Your task to perform on an android device: Add razer blade to the cart on costco.com, then select checkout. Image 0: 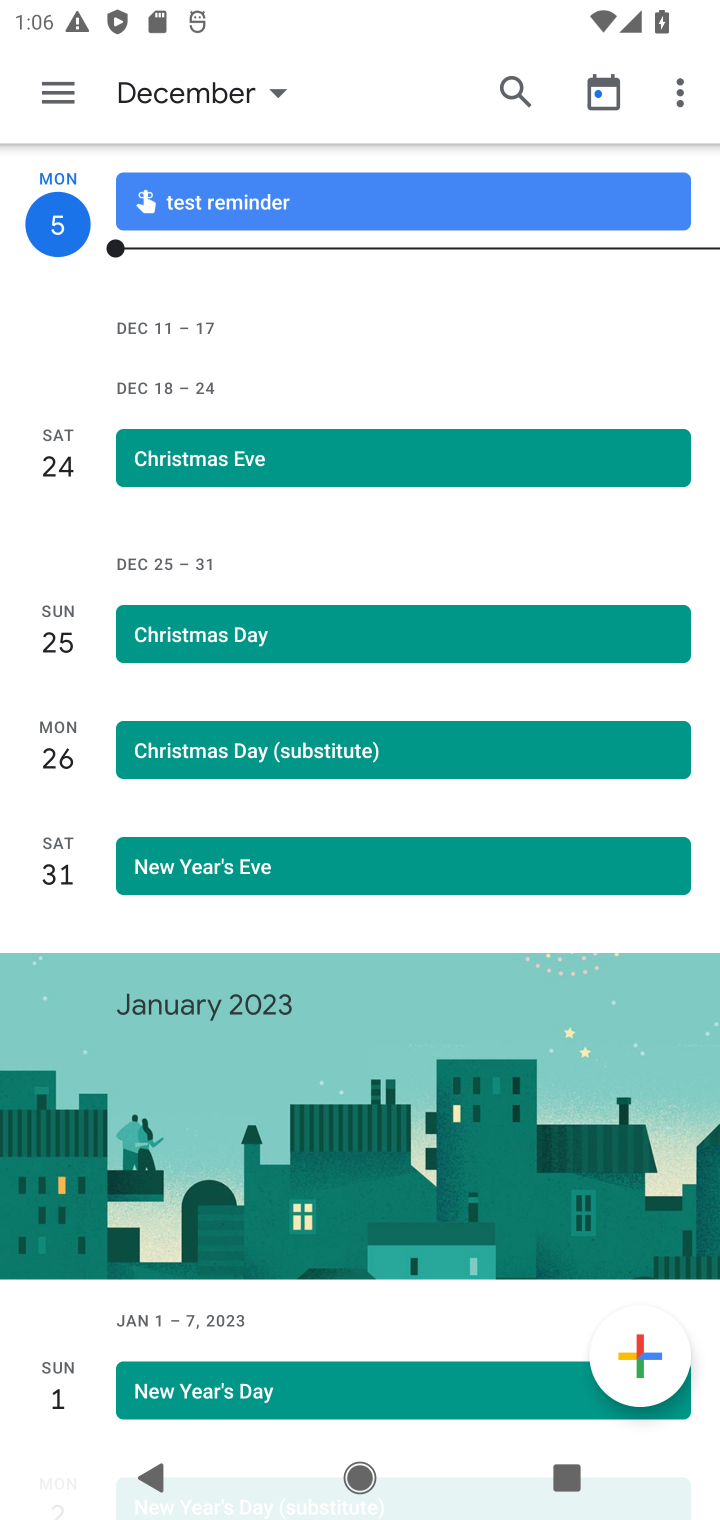
Step 0: press home button
Your task to perform on an android device: Add razer blade to the cart on costco.com, then select checkout. Image 1: 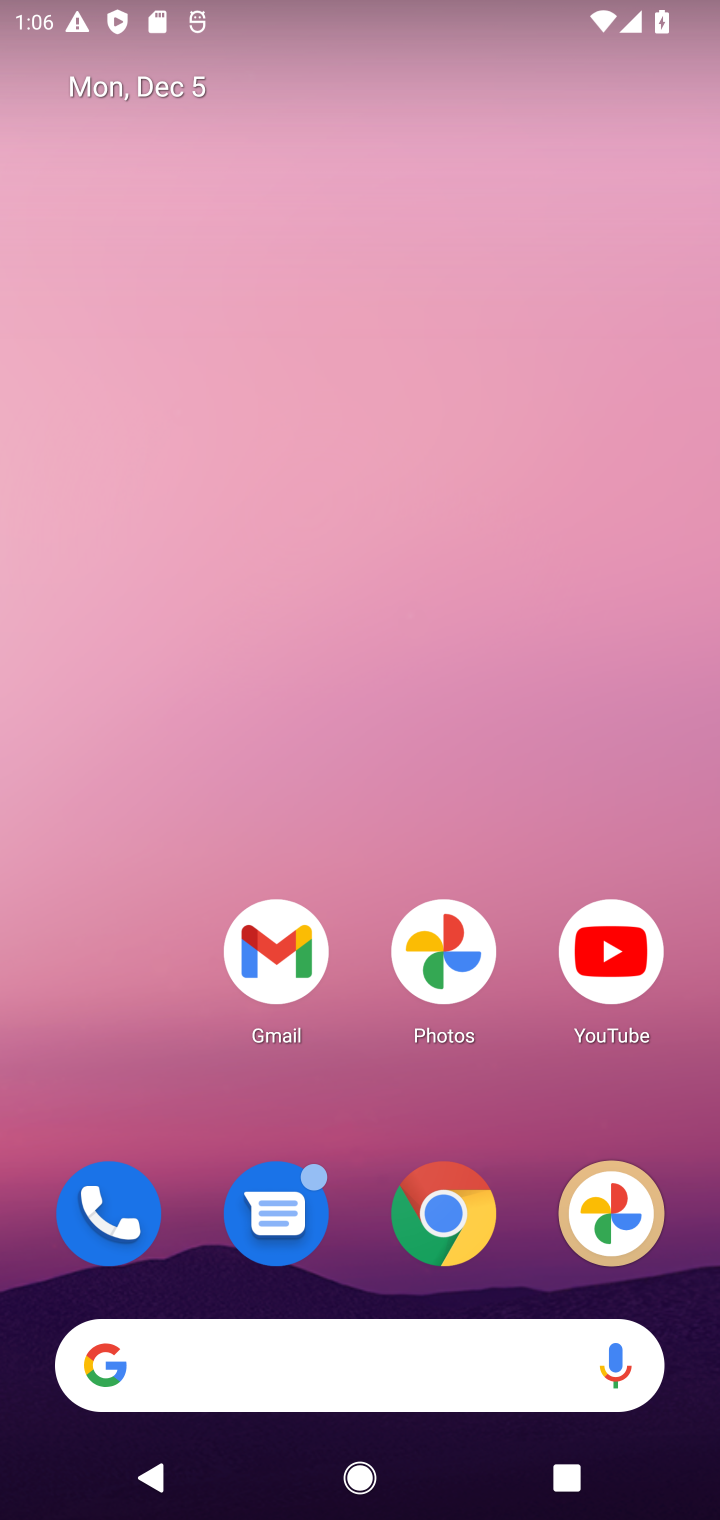
Step 1: click (446, 1220)
Your task to perform on an android device: Add razer blade to the cart on costco.com, then select checkout. Image 2: 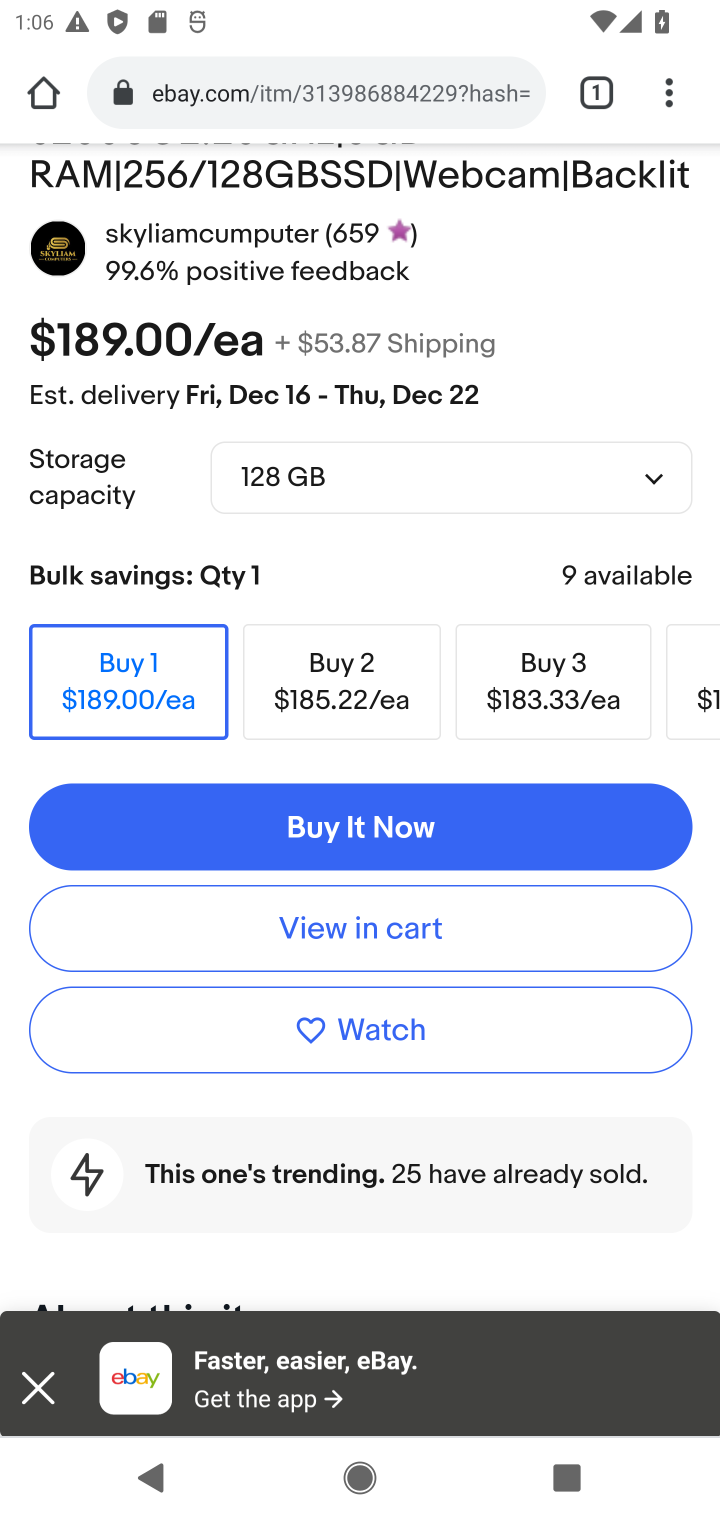
Step 2: click (273, 98)
Your task to perform on an android device: Add razer blade to the cart on costco.com, then select checkout. Image 3: 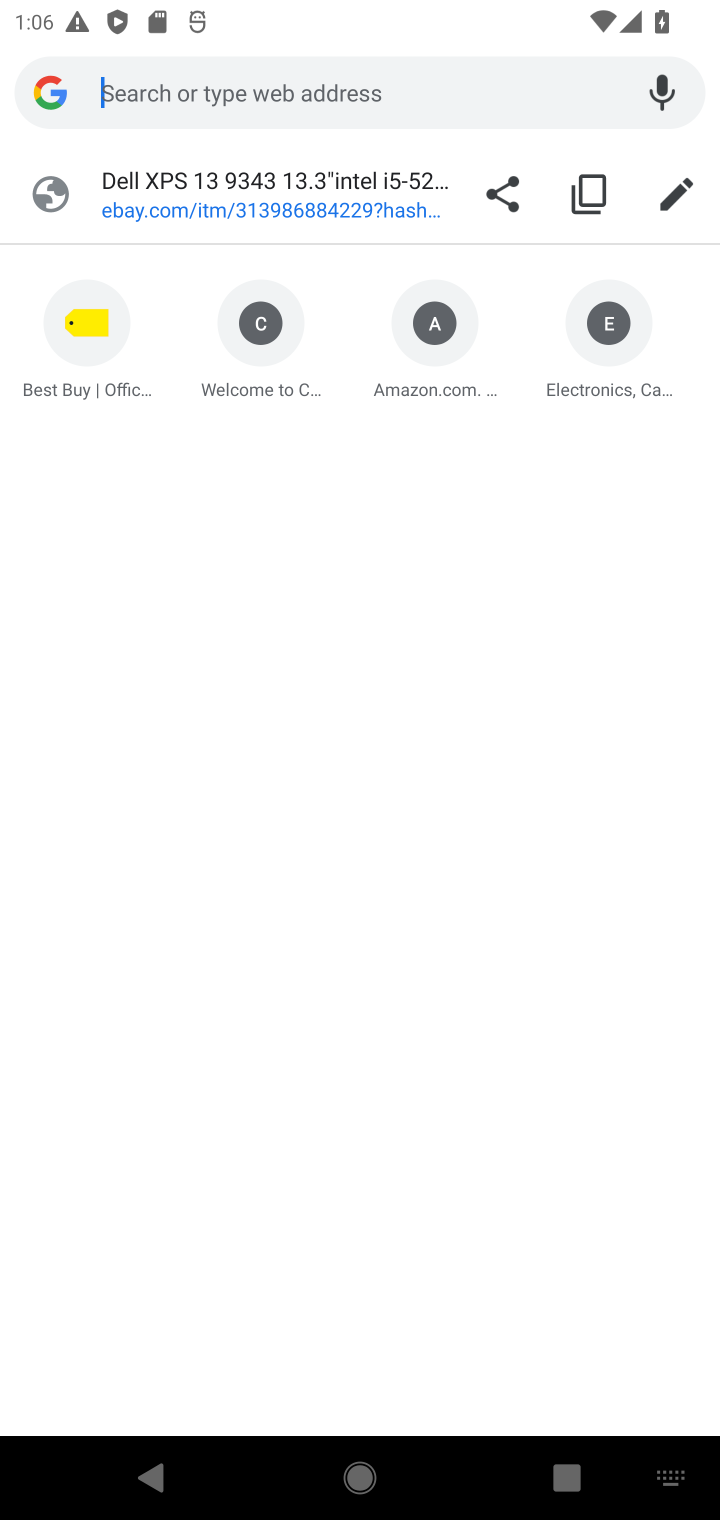
Step 3: type "costco.com"
Your task to perform on an android device: Add razer blade to the cart on costco.com, then select checkout. Image 4: 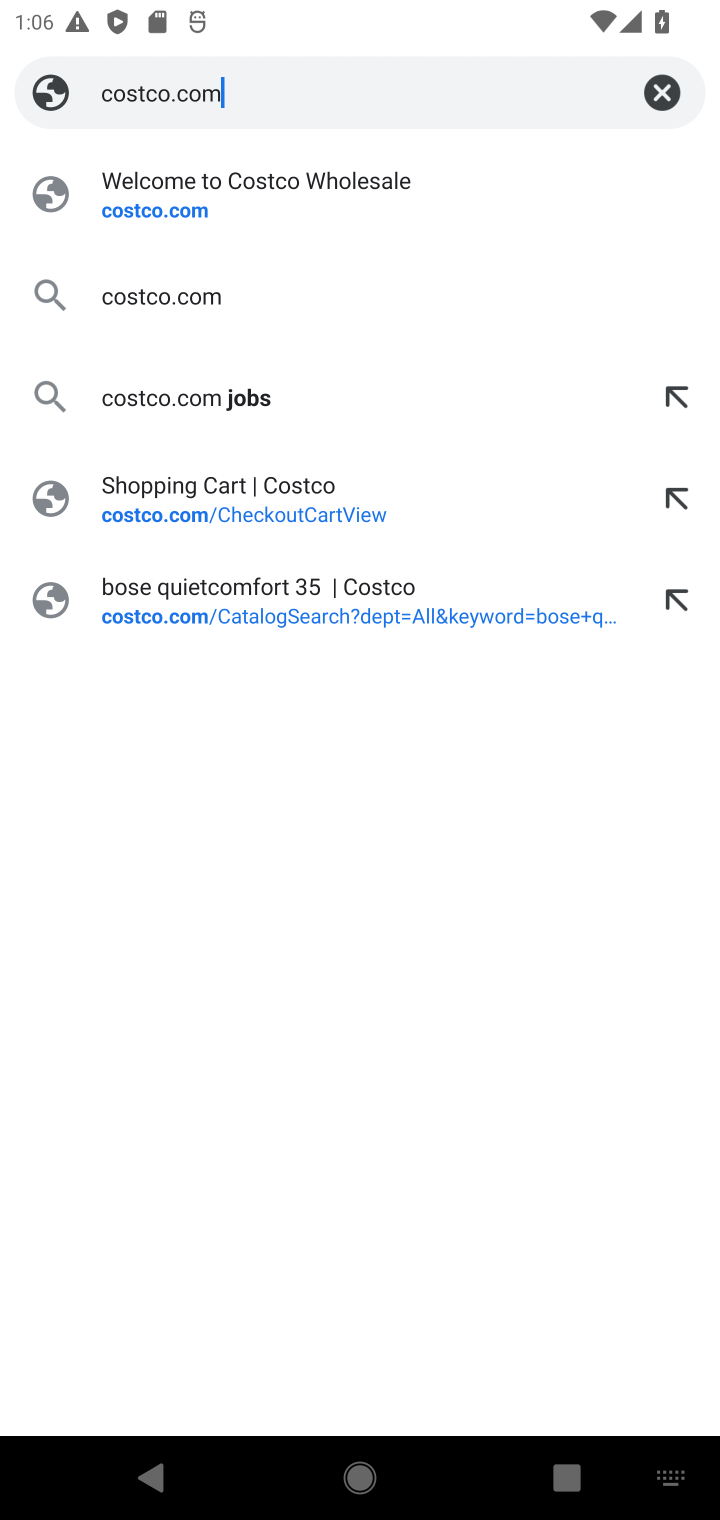
Step 4: click (176, 208)
Your task to perform on an android device: Add razer blade to the cart on costco.com, then select checkout. Image 5: 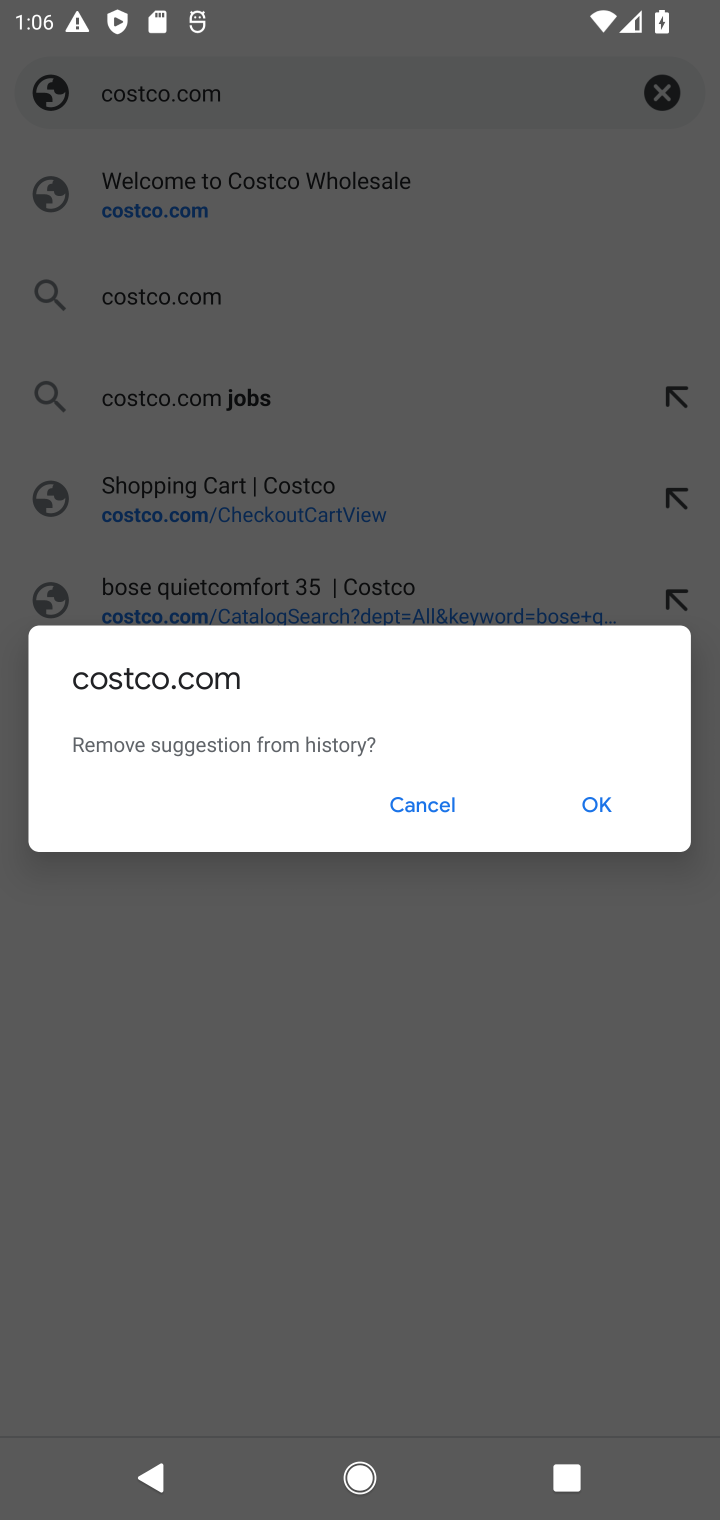
Step 5: click (450, 813)
Your task to perform on an android device: Add razer blade to the cart on costco.com, then select checkout. Image 6: 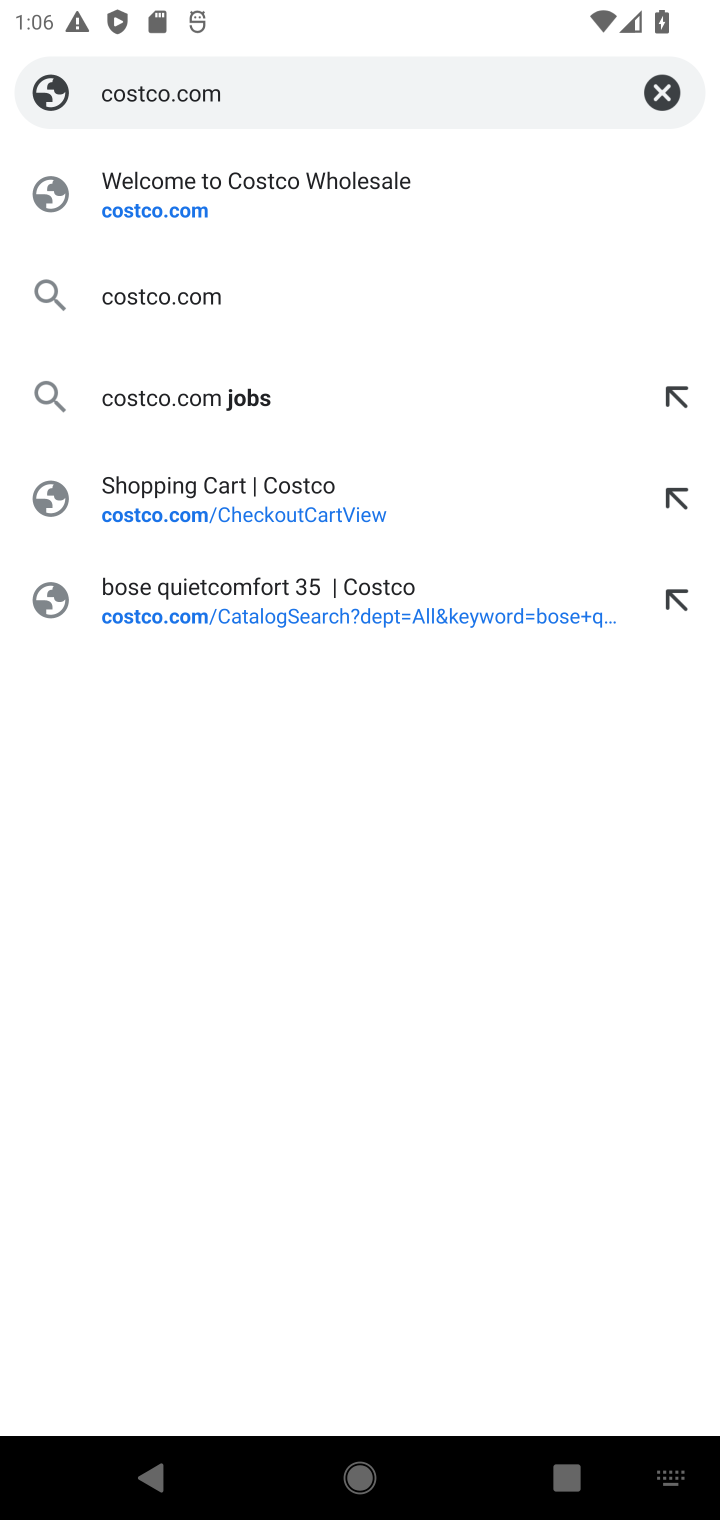
Step 6: click (131, 198)
Your task to perform on an android device: Add razer blade to the cart on costco.com, then select checkout. Image 7: 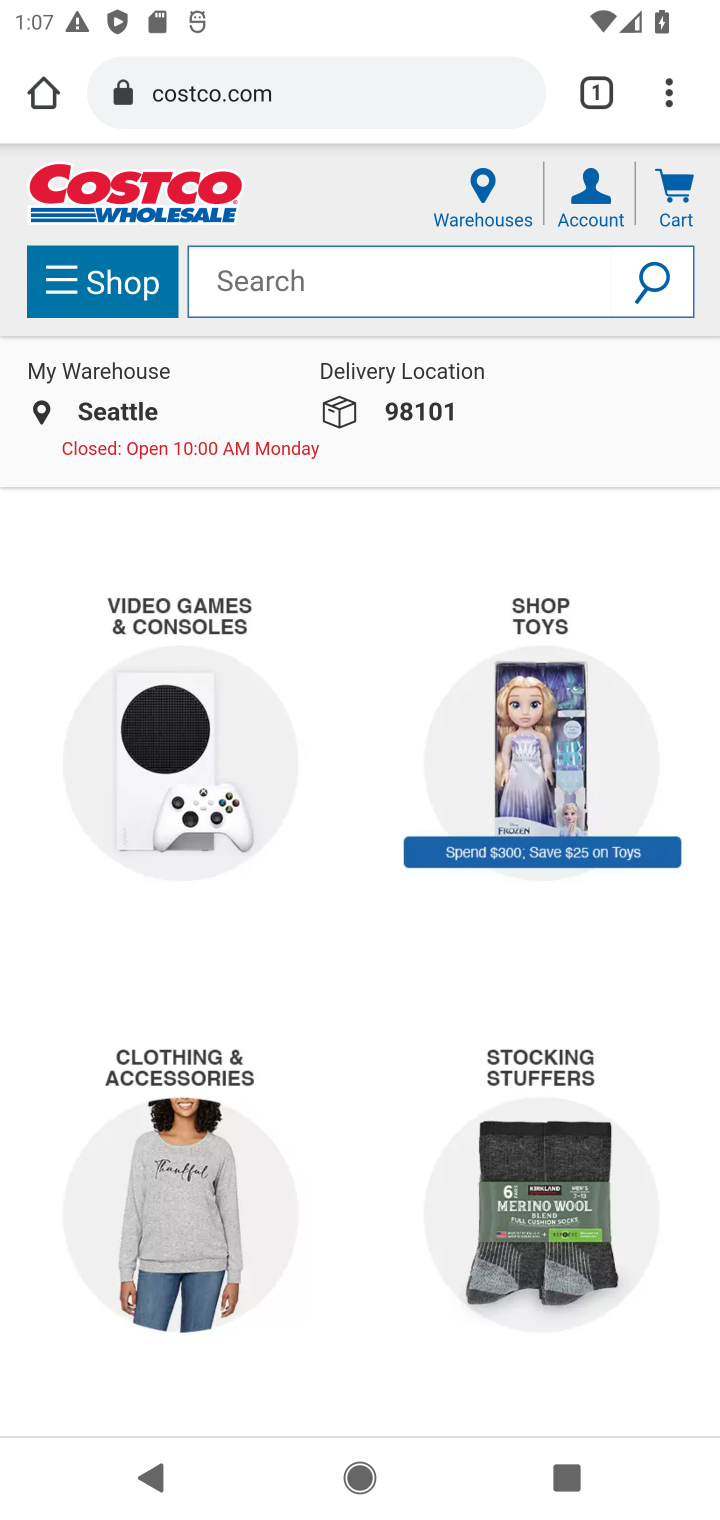
Step 7: click (365, 275)
Your task to perform on an android device: Add razer blade to the cart on costco.com, then select checkout. Image 8: 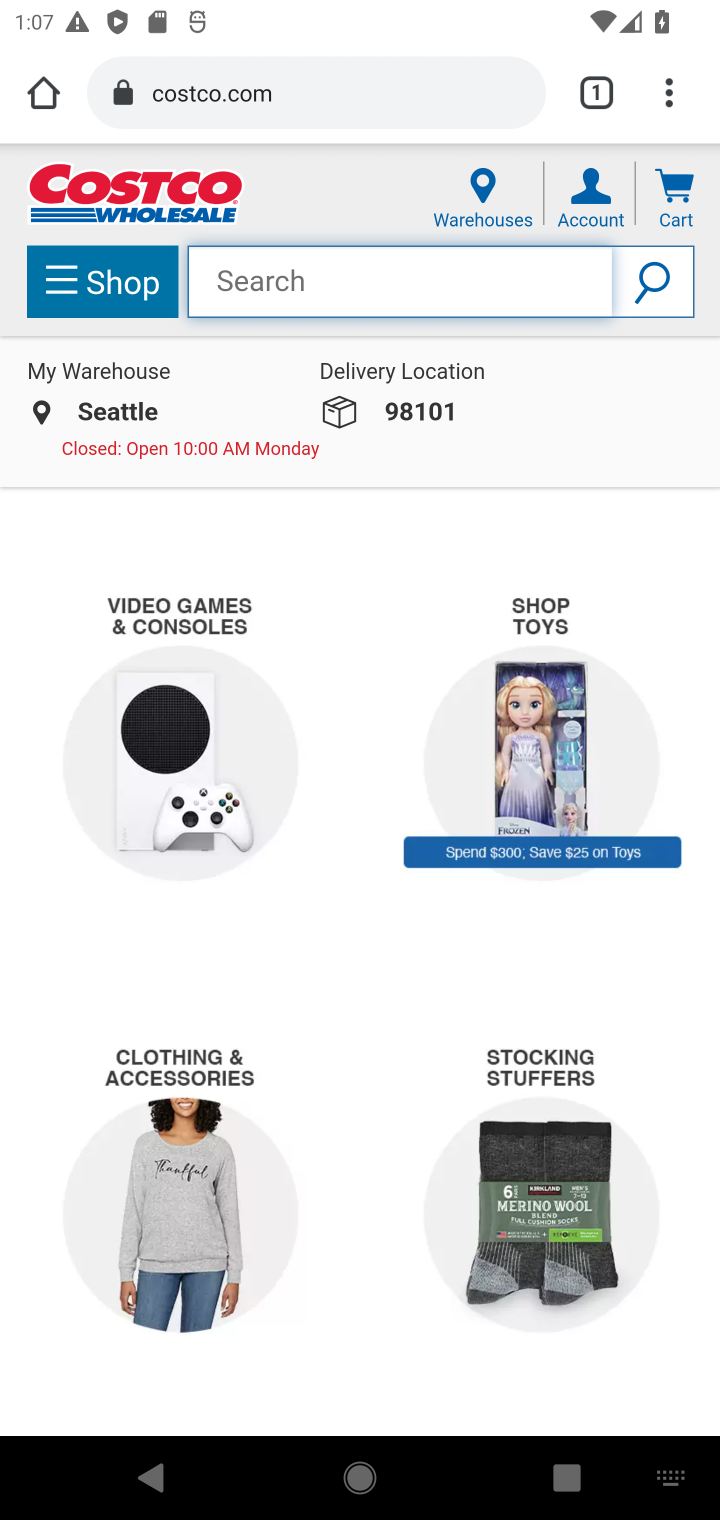
Step 8: type "razer blade"
Your task to perform on an android device: Add razer blade to the cart on costco.com, then select checkout. Image 9: 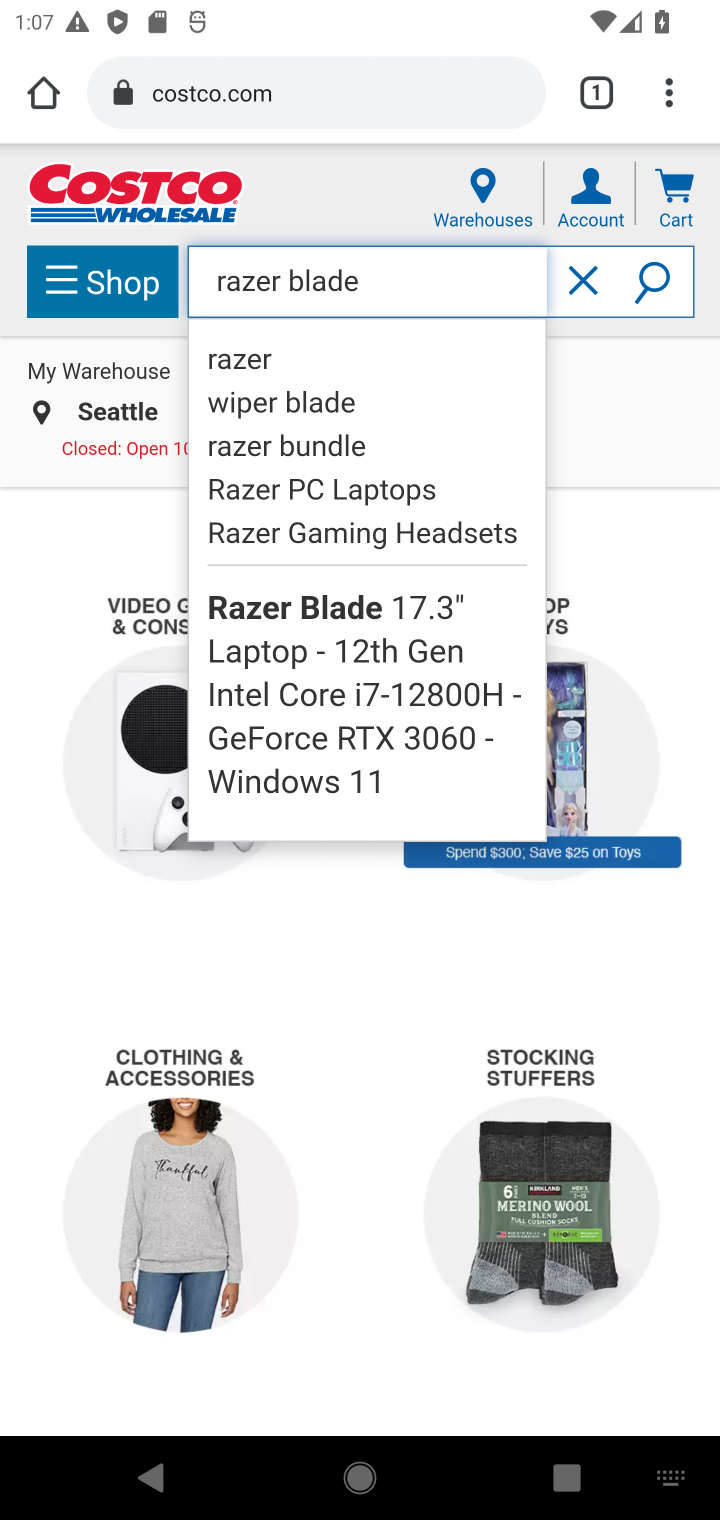
Step 9: click (666, 264)
Your task to perform on an android device: Add razer blade to the cart on costco.com, then select checkout. Image 10: 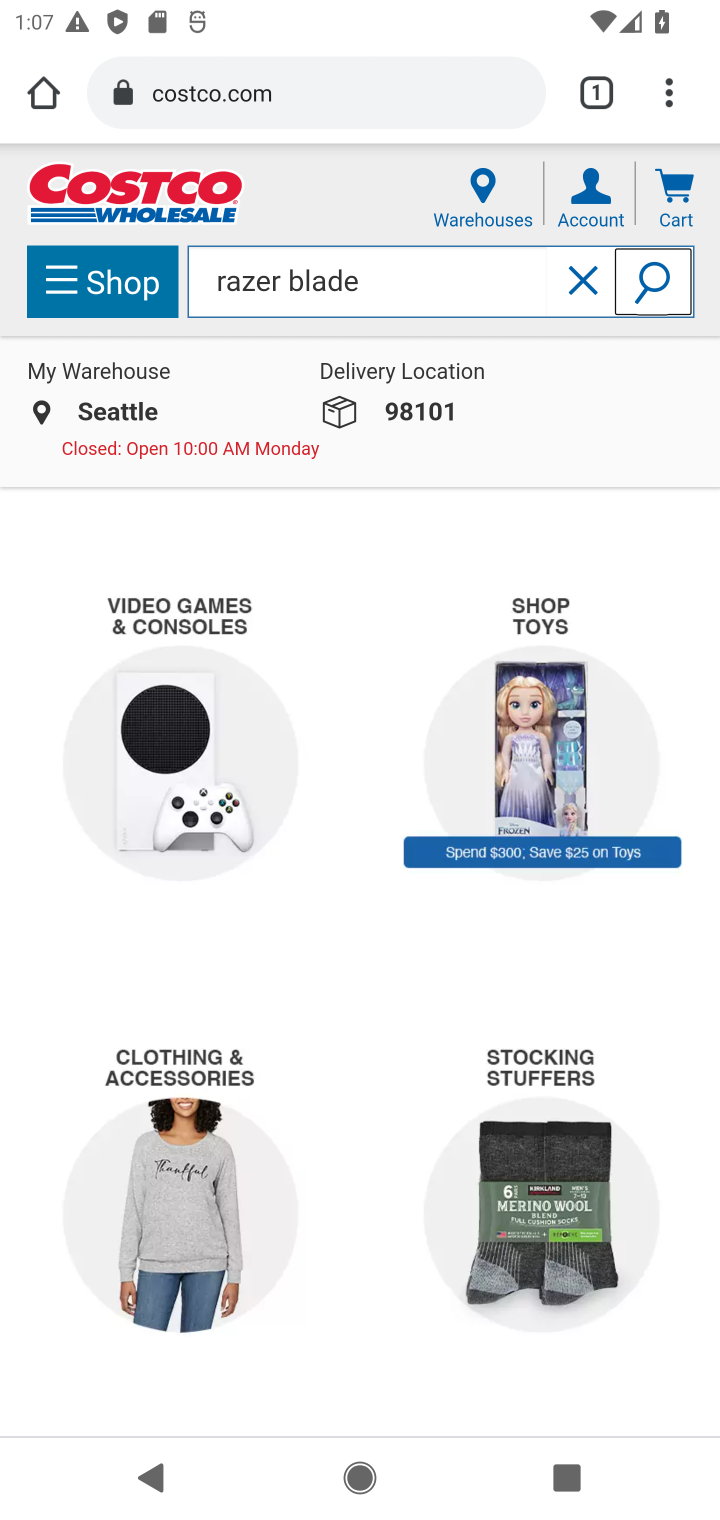
Step 10: click (655, 294)
Your task to perform on an android device: Add razer blade to the cart on costco.com, then select checkout. Image 11: 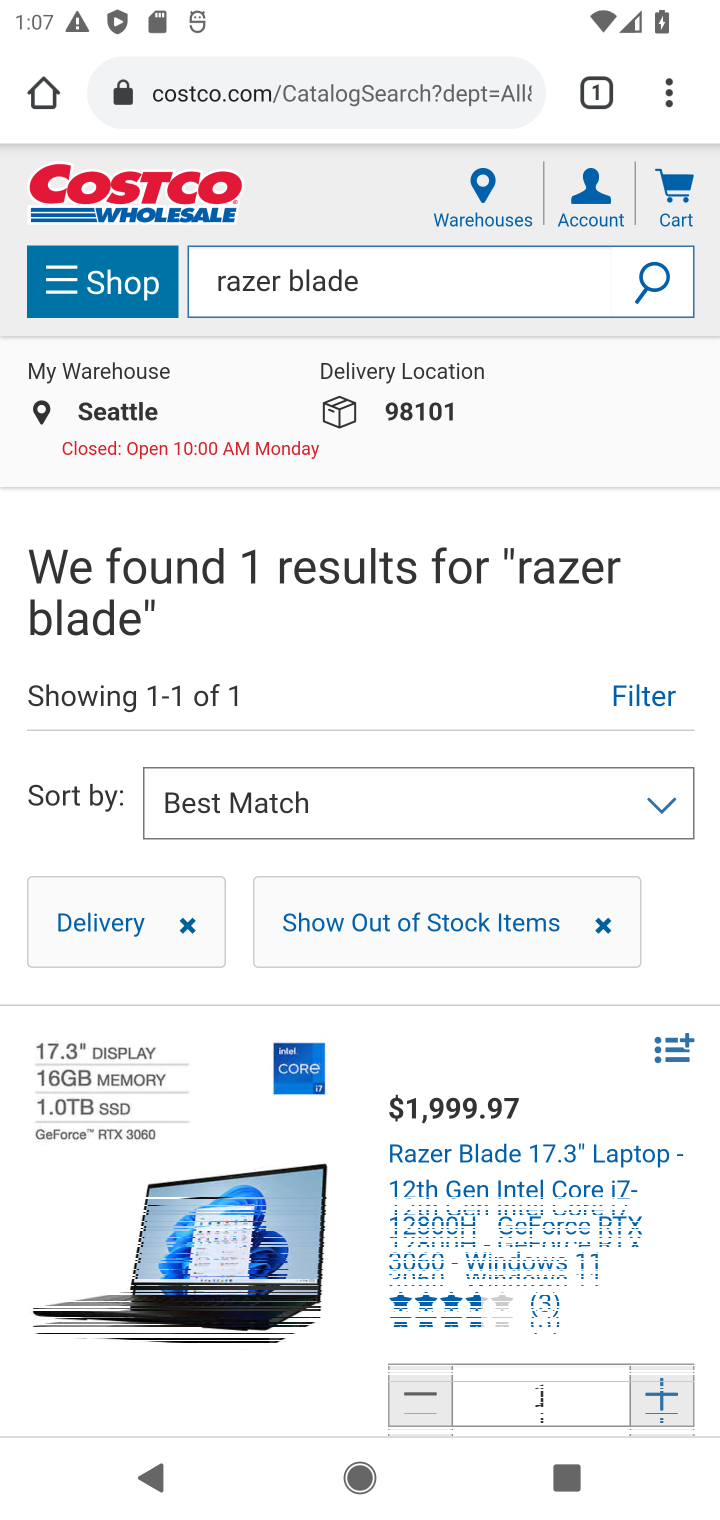
Step 11: drag from (499, 1185) to (501, 940)
Your task to perform on an android device: Add razer blade to the cart on costco.com, then select checkout. Image 12: 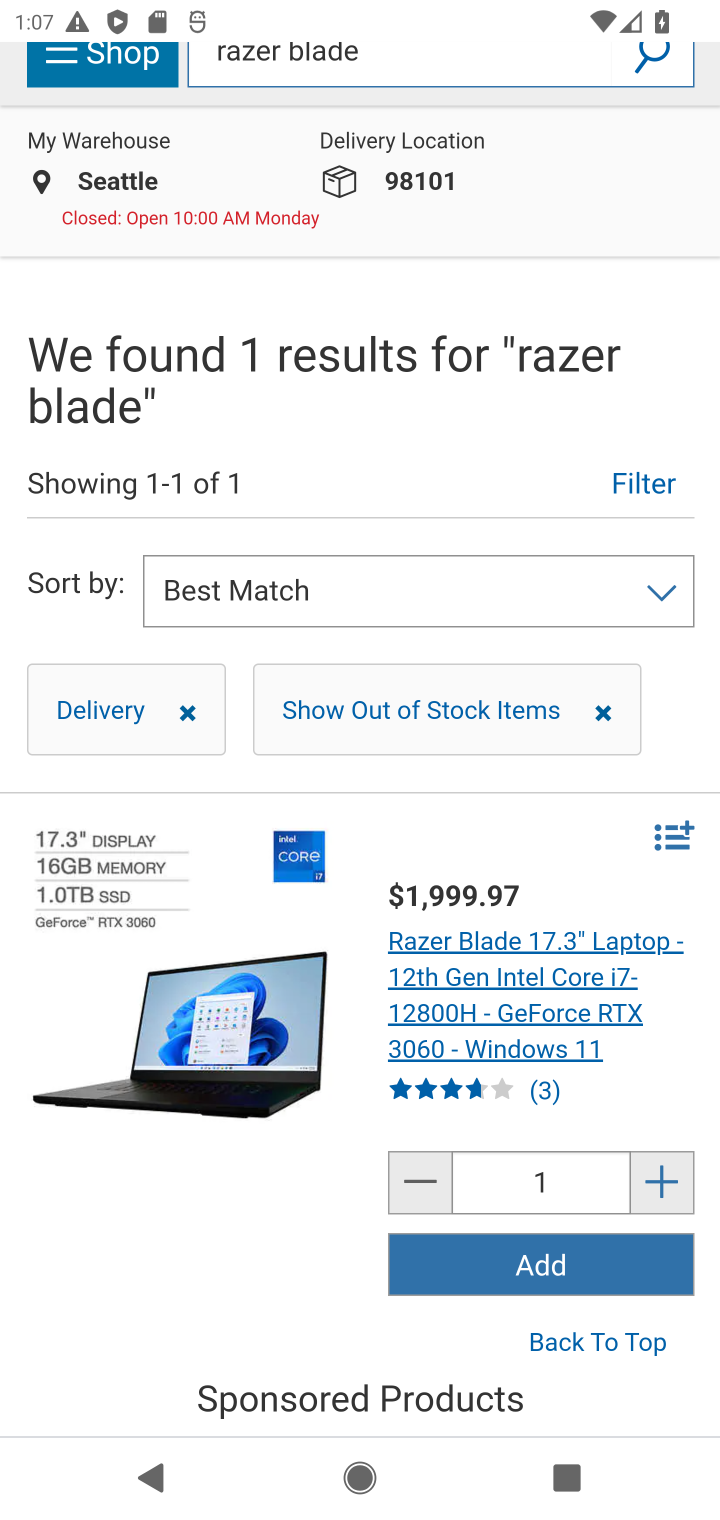
Step 12: click (531, 1259)
Your task to perform on an android device: Add razer blade to the cart on costco.com, then select checkout. Image 13: 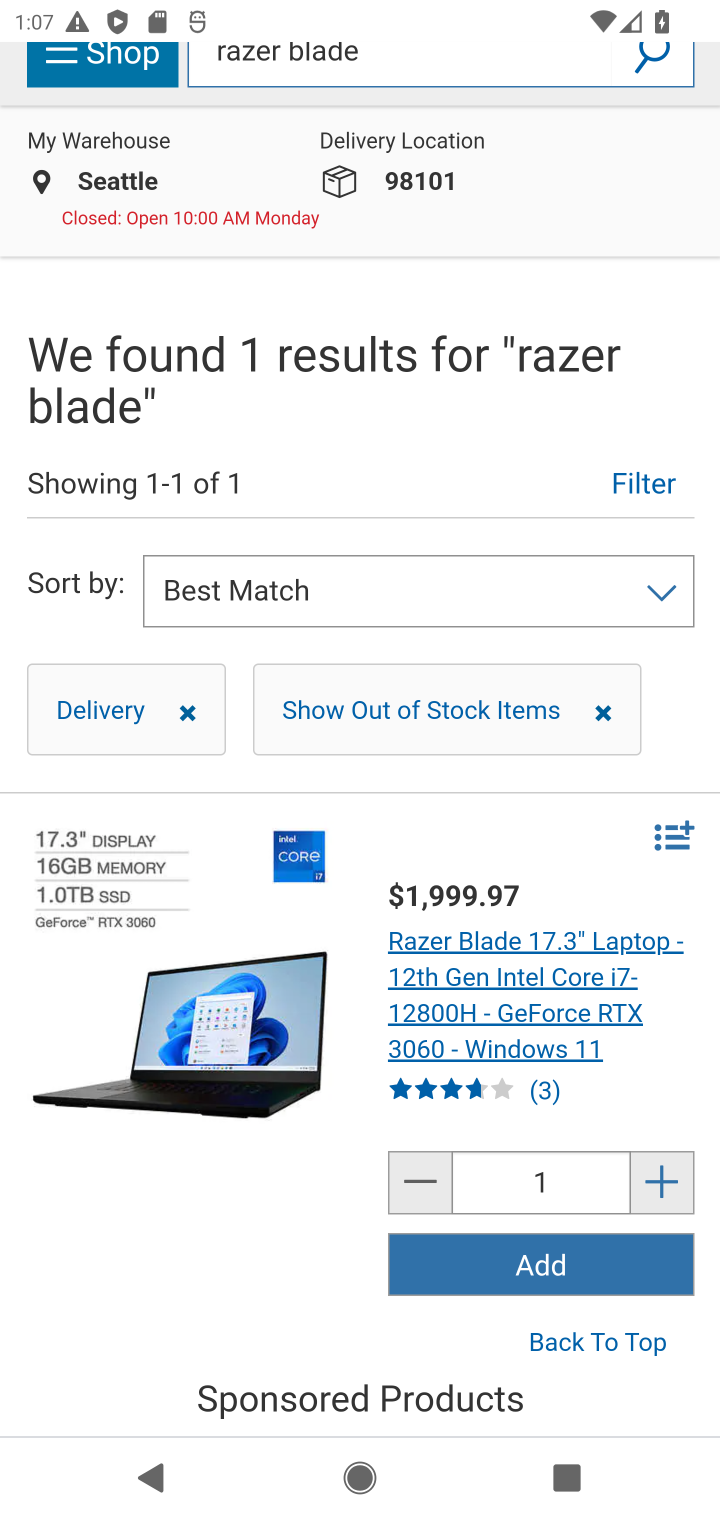
Step 13: drag from (448, 404) to (475, 1148)
Your task to perform on an android device: Add razer blade to the cart on costco.com, then select checkout. Image 14: 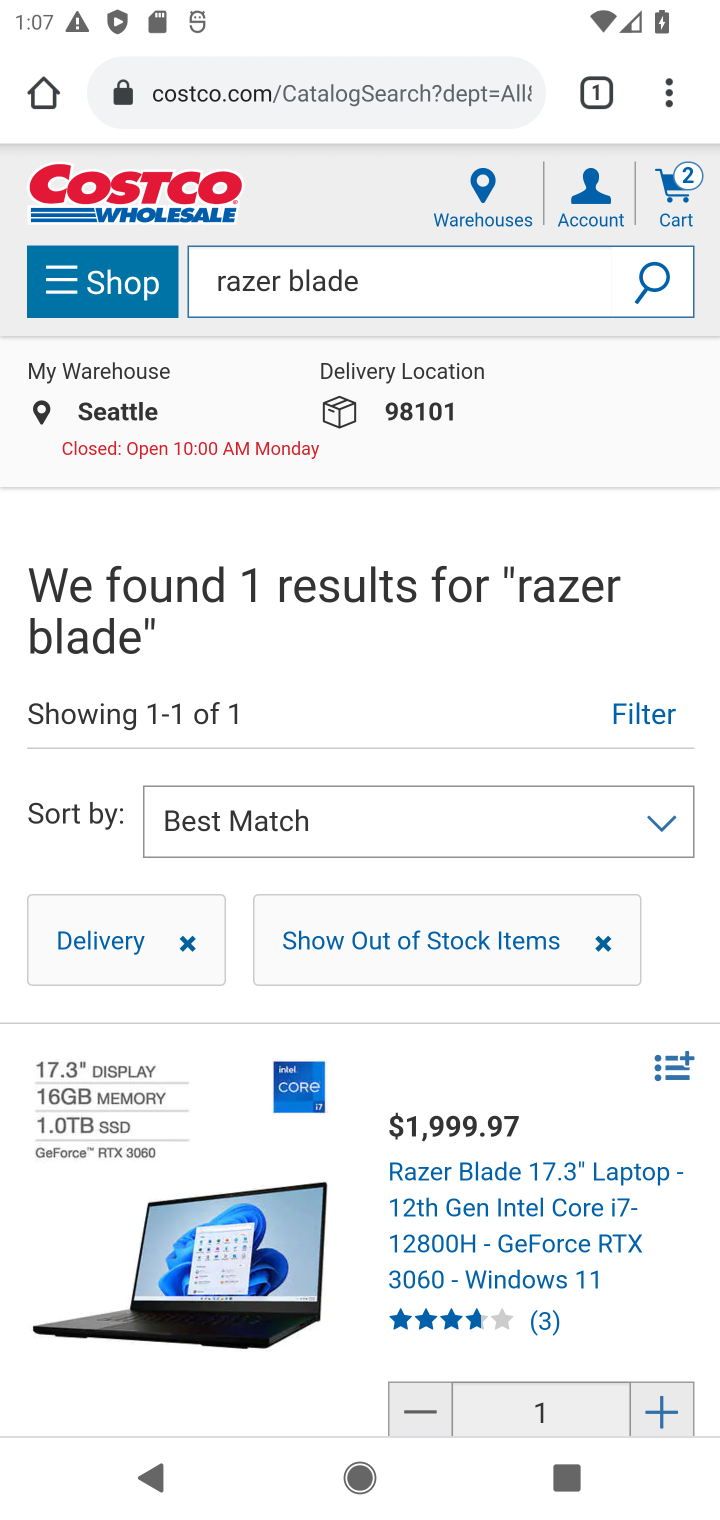
Step 14: click (675, 173)
Your task to perform on an android device: Add razer blade to the cart on costco.com, then select checkout. Image 15: 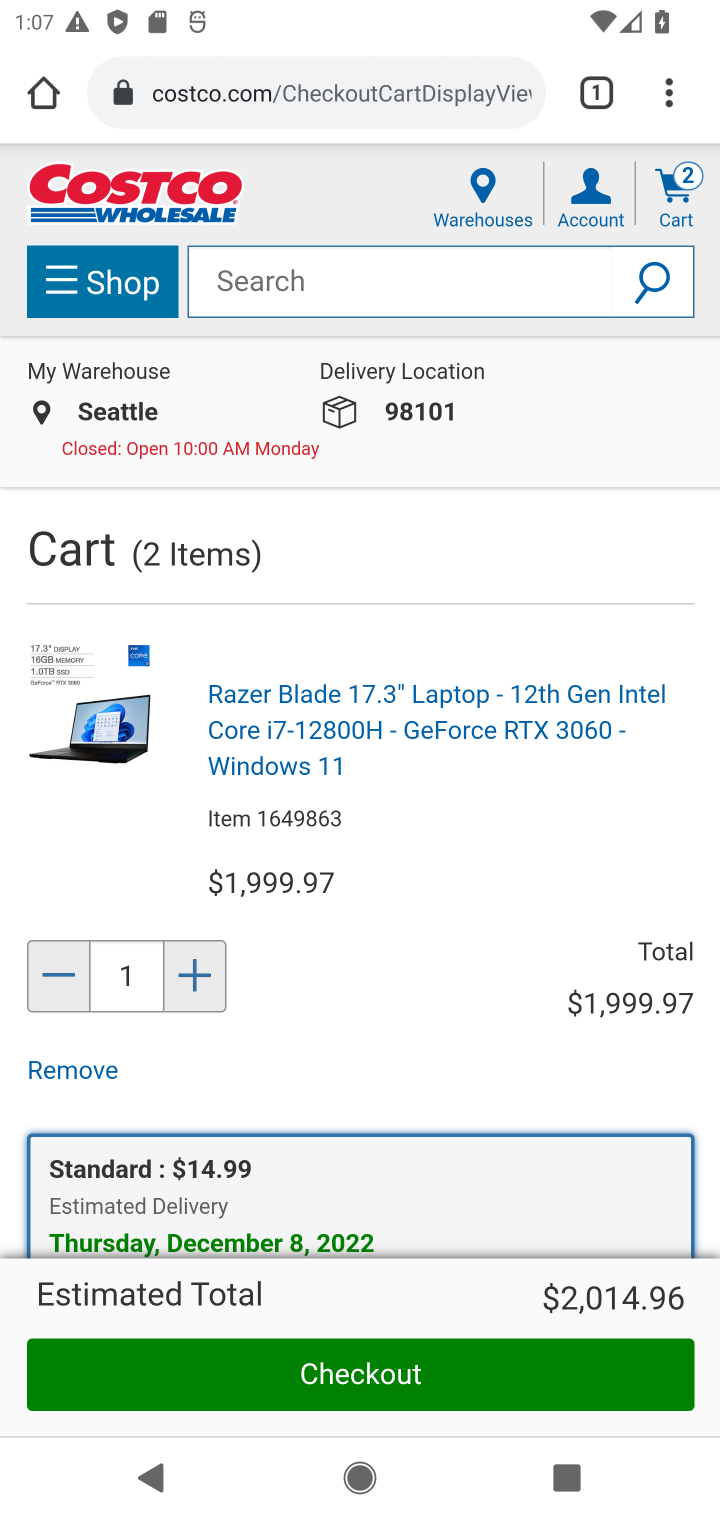
Step 15: click (355, 1372)
Your task to perform on an android device: Add razer blade to the cart on costco.com, then select checkout. Image 16: 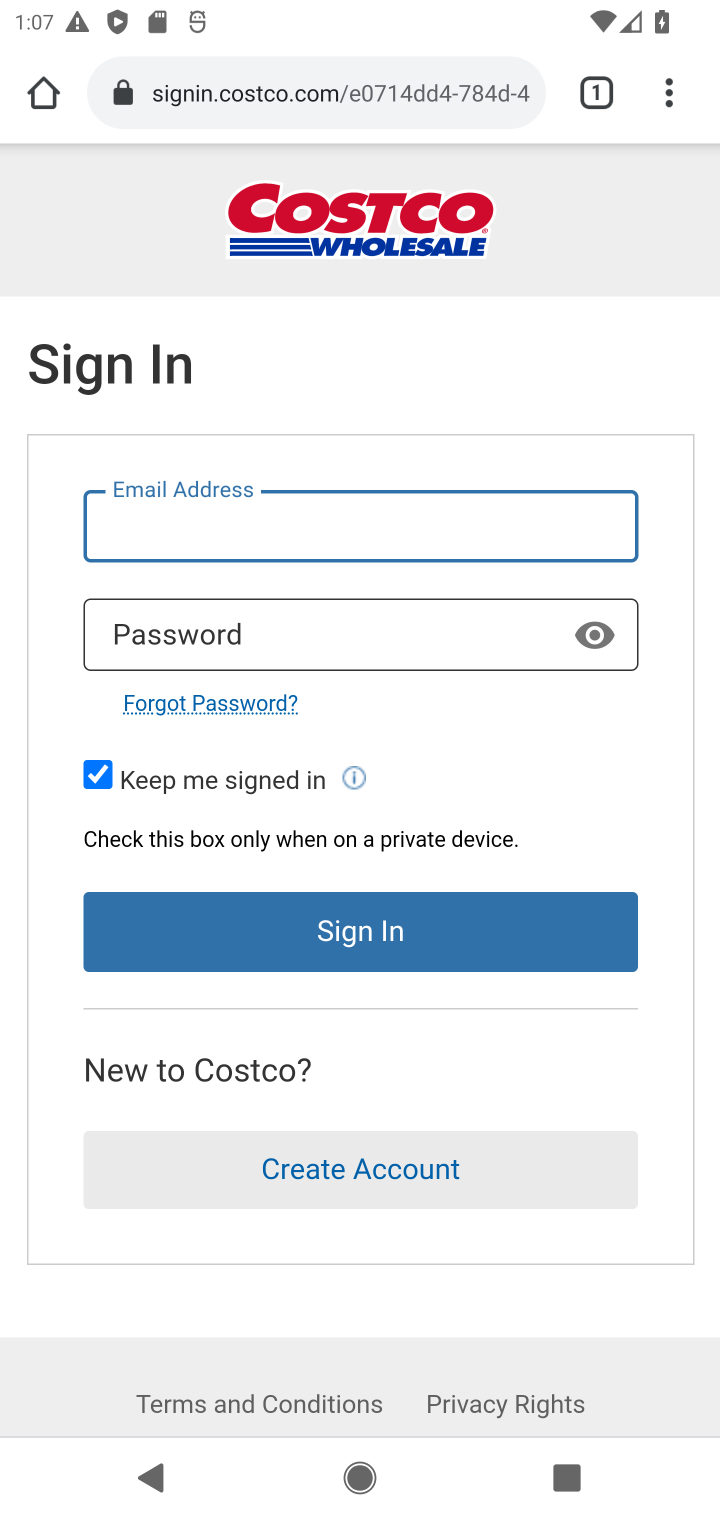
Step 16: task complete